Your task to perform on an android device: allow notifications from all sites in the chrome app Image 0: 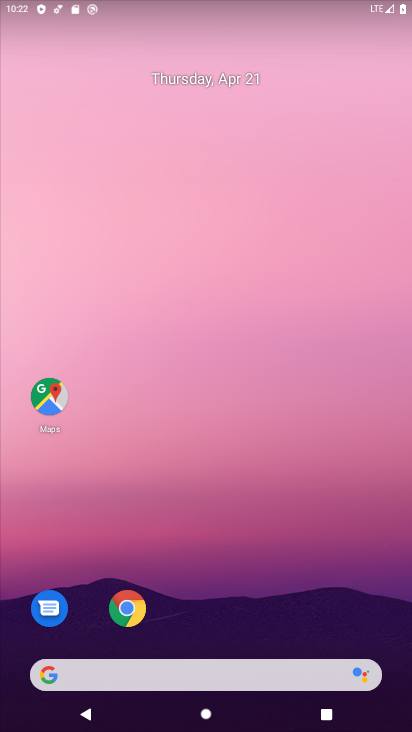
Step 0: click (126, 607)
Your task to perform on an android device: allow notifications from all sites in the chrome app Image 1: 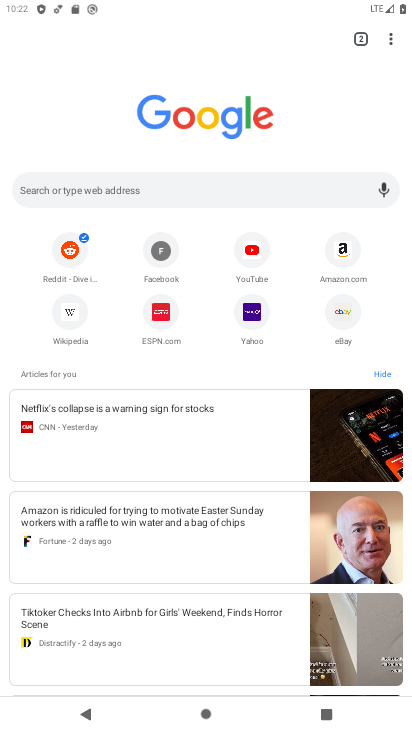
Step 1: drag from (391, 34) to (248, 328)
Your task to perform on an android device: allow notifications from all sites in the chrome app Image 2: 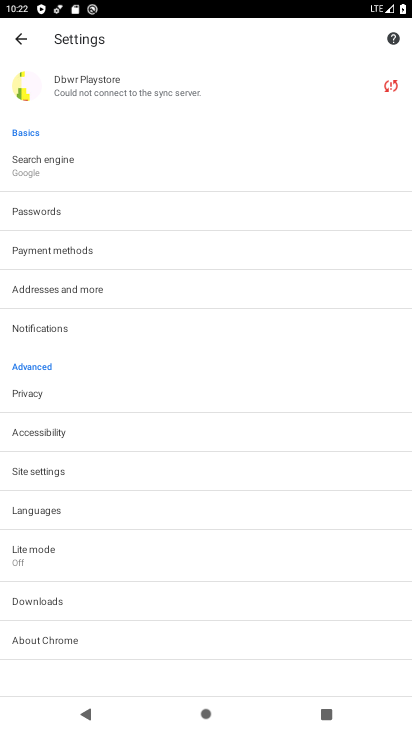
Step 2: click (26, 316)
Your task to perform on an android device: allow notifications from all sites in the chrome app Image 3: 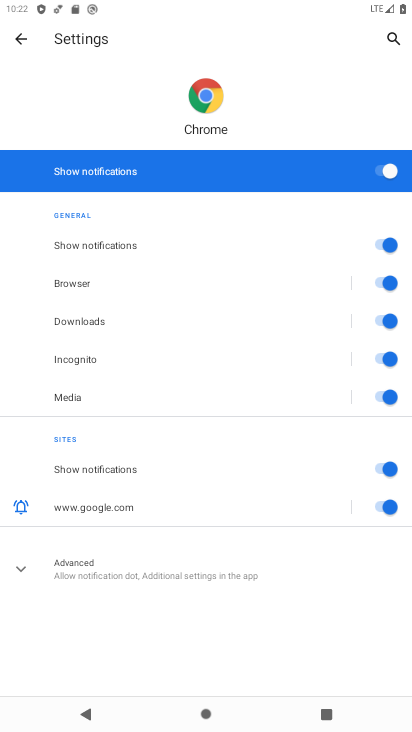
Step 3: task complete